Your task to perform on an android device: Open calendar and show me the fourth week of next month Image 0: 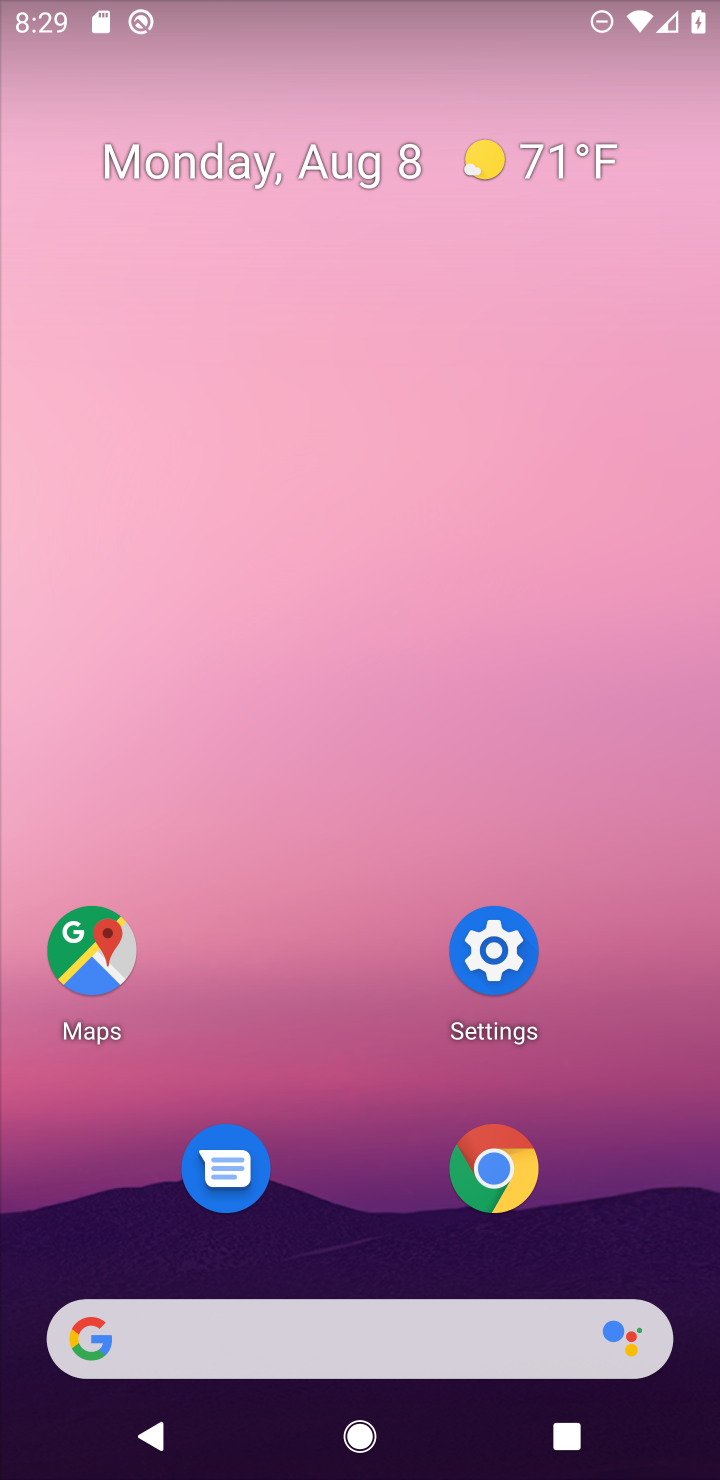
Step 0: press home button
Your task to perform on an android device: Open calendar and show me the fourth week of next month Image 1: 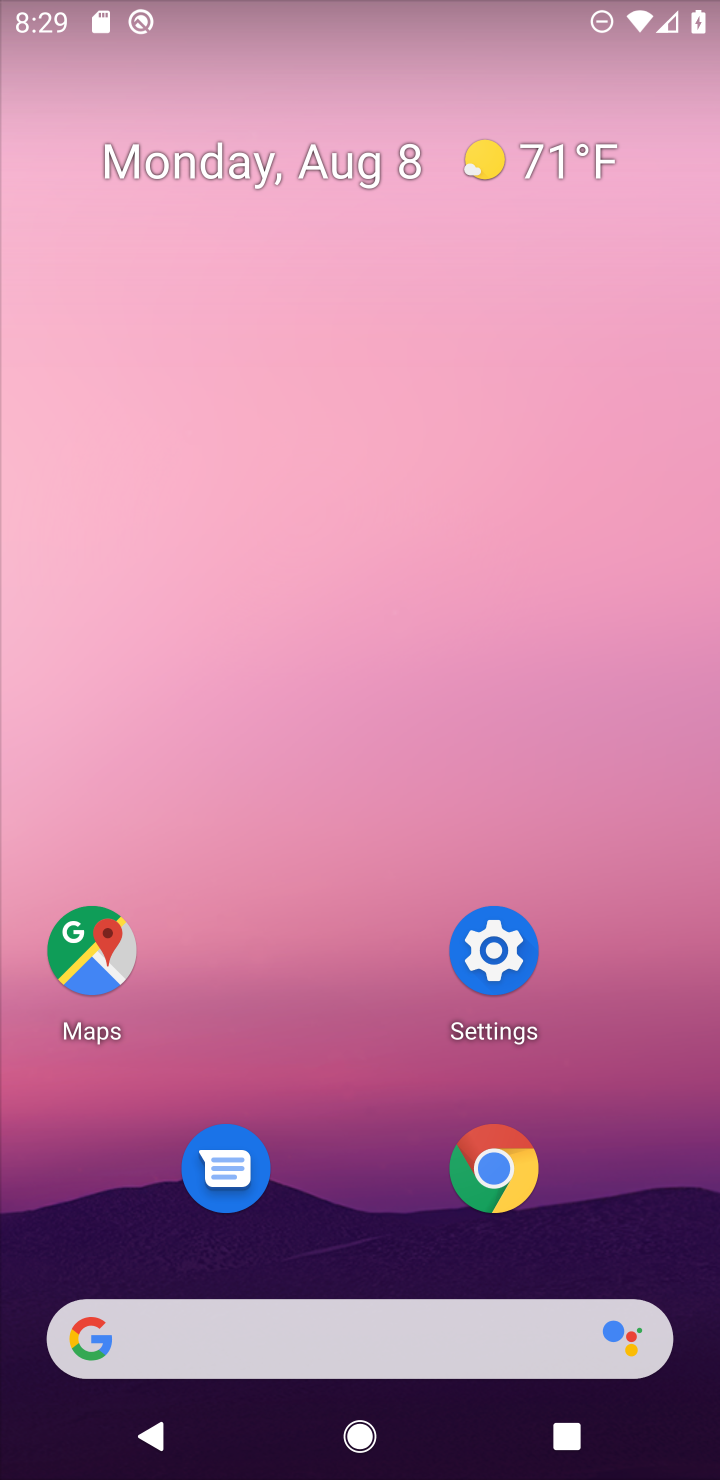
Step 1: drag from (234, 1309) to (646, 27)
Your task to perform on an android device: Open calendar and show me the fourth week of next month Image 2: 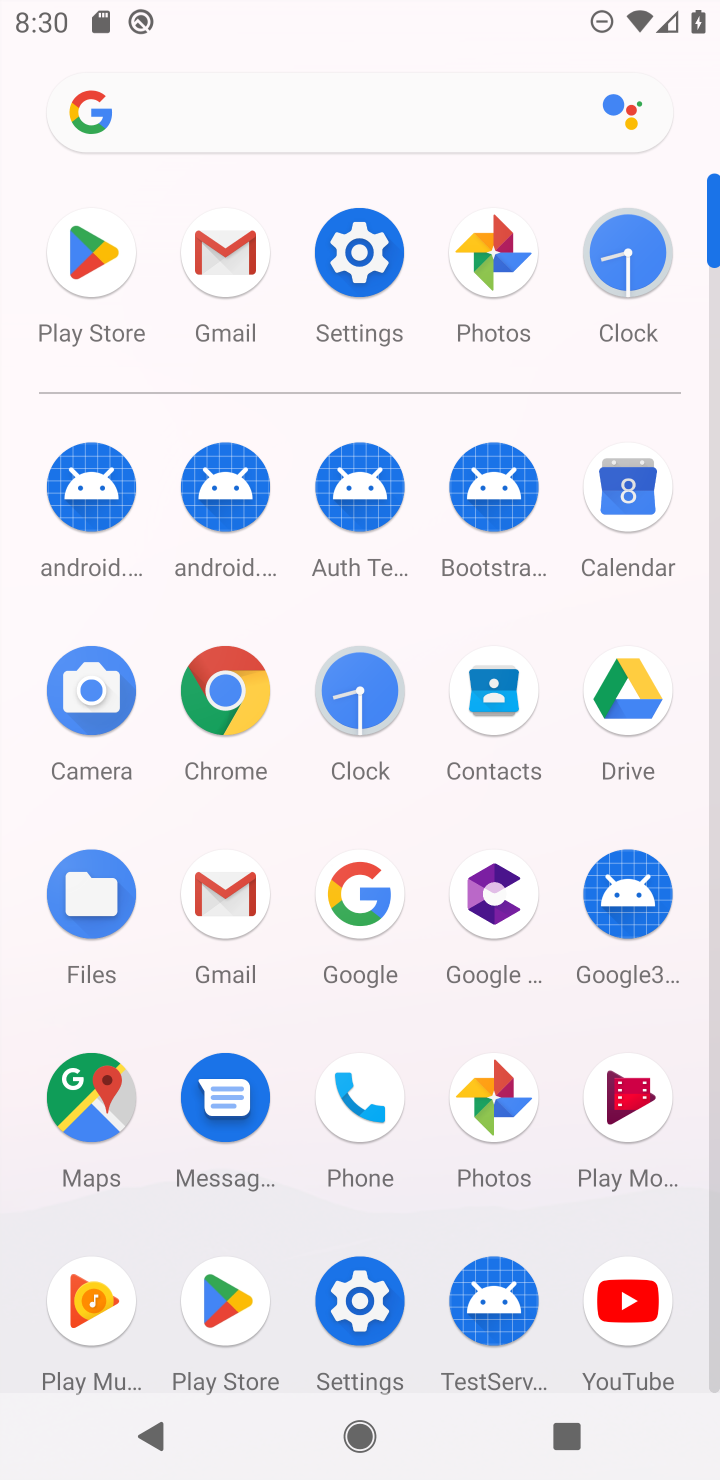
Step 2: click (635, 494)
Your task to perform on an android device: Open calendar and show me the fourth week of next month Image 3: 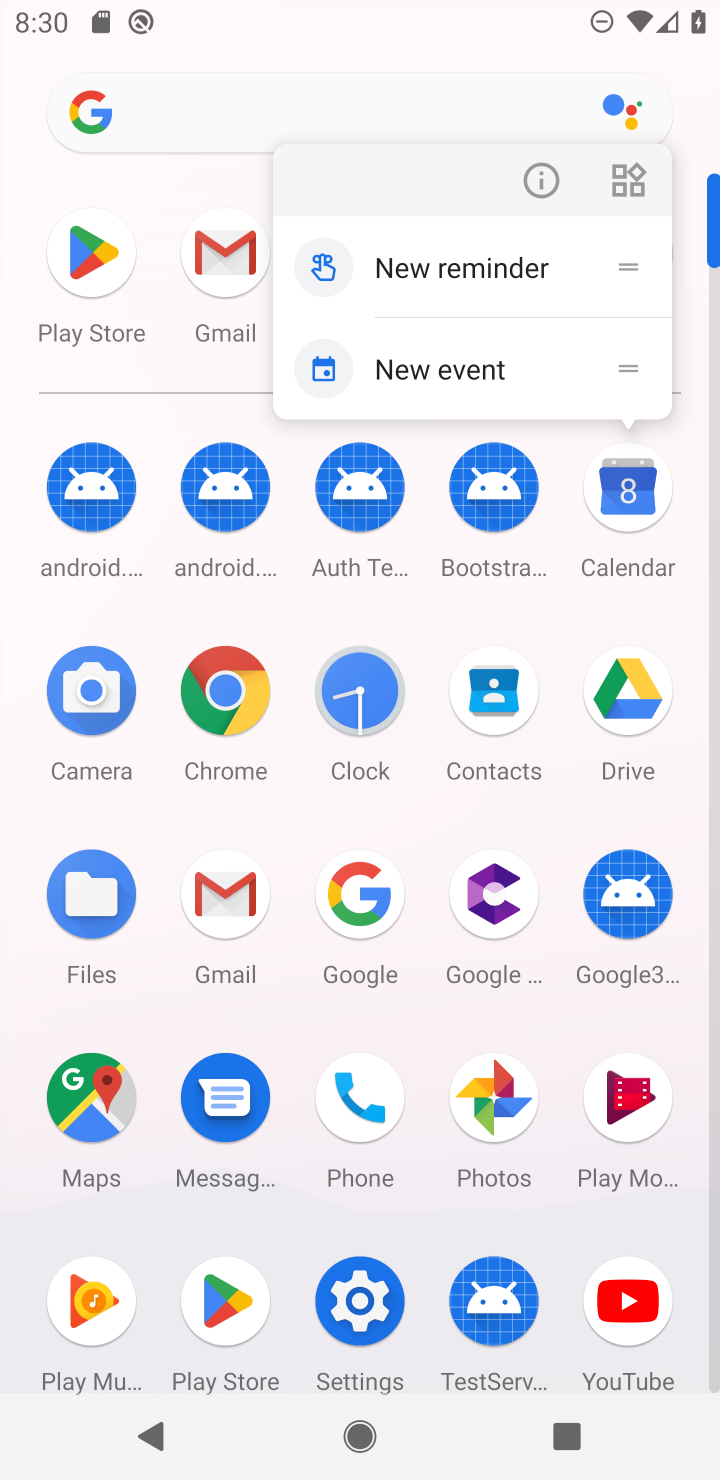
Step 3: click (623, 492)
Your task to perform on an android device: Open calendar and show me the fourth week of next month Image 4: 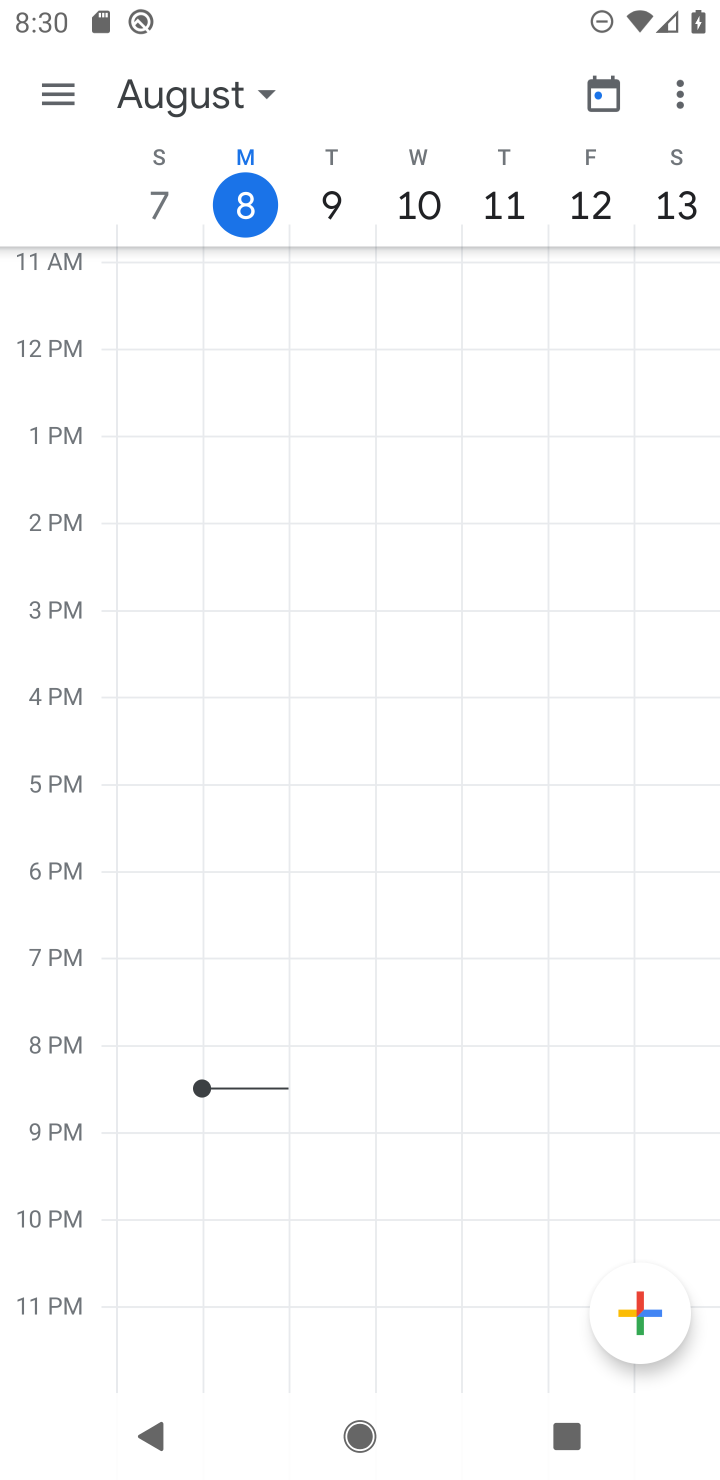
Step 4: click (194, 80)
Your task to perform on an android device: Open calendar and show me the fourth week of next month Image 5: 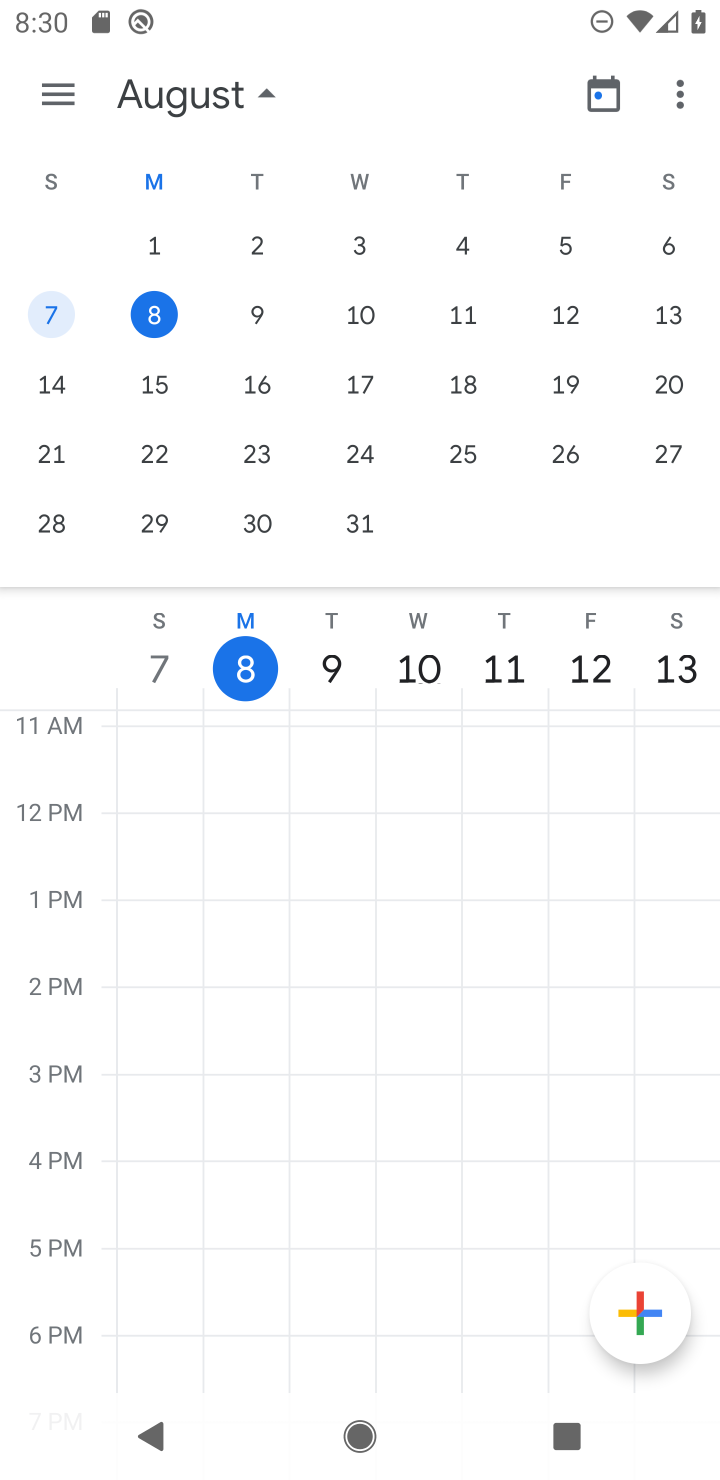
Step 5: drag from (603, 386) to (39, 286)
Your task to perform on an android device: Open calendar and show me the fourth week of next month Image 6: 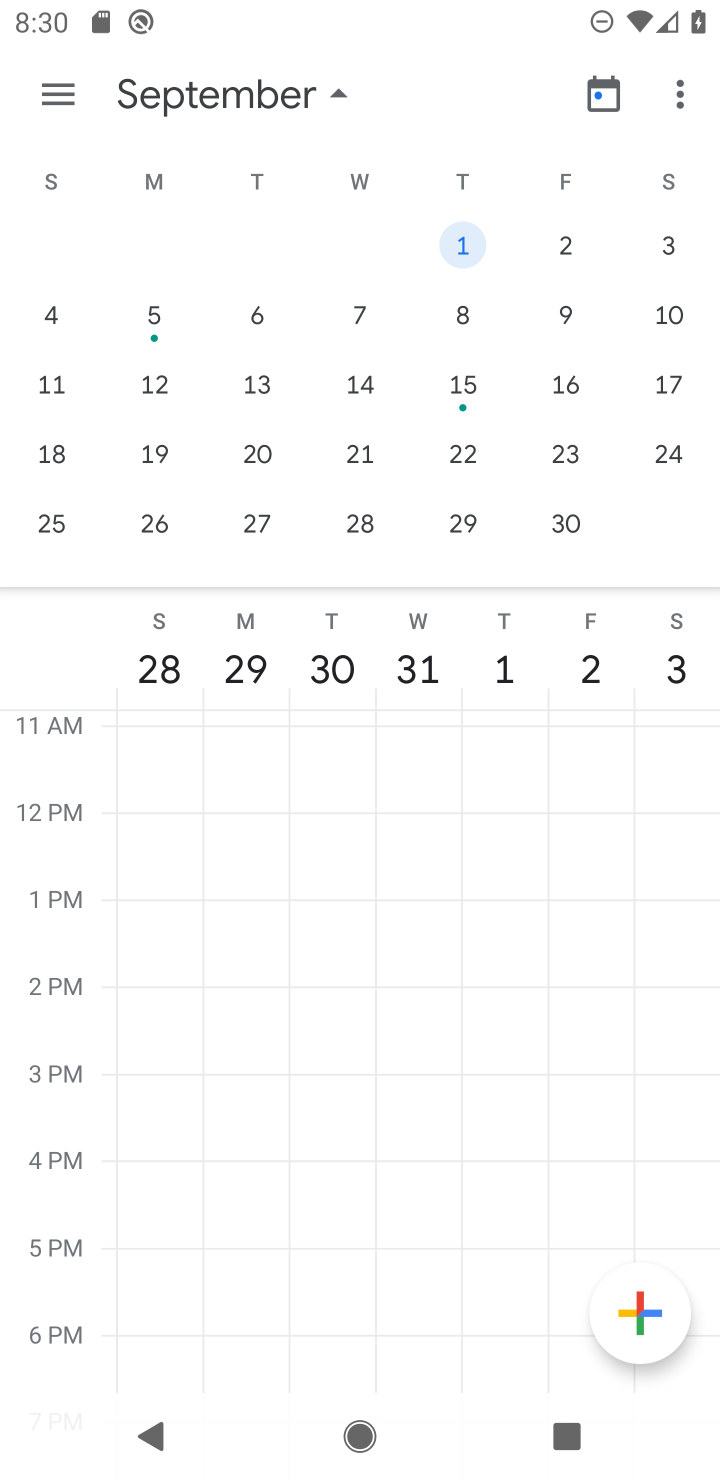
Step 6: click (60, 454)
Your task to perform on an android device: Open calendar and show me the fourth week of next month Image 7: 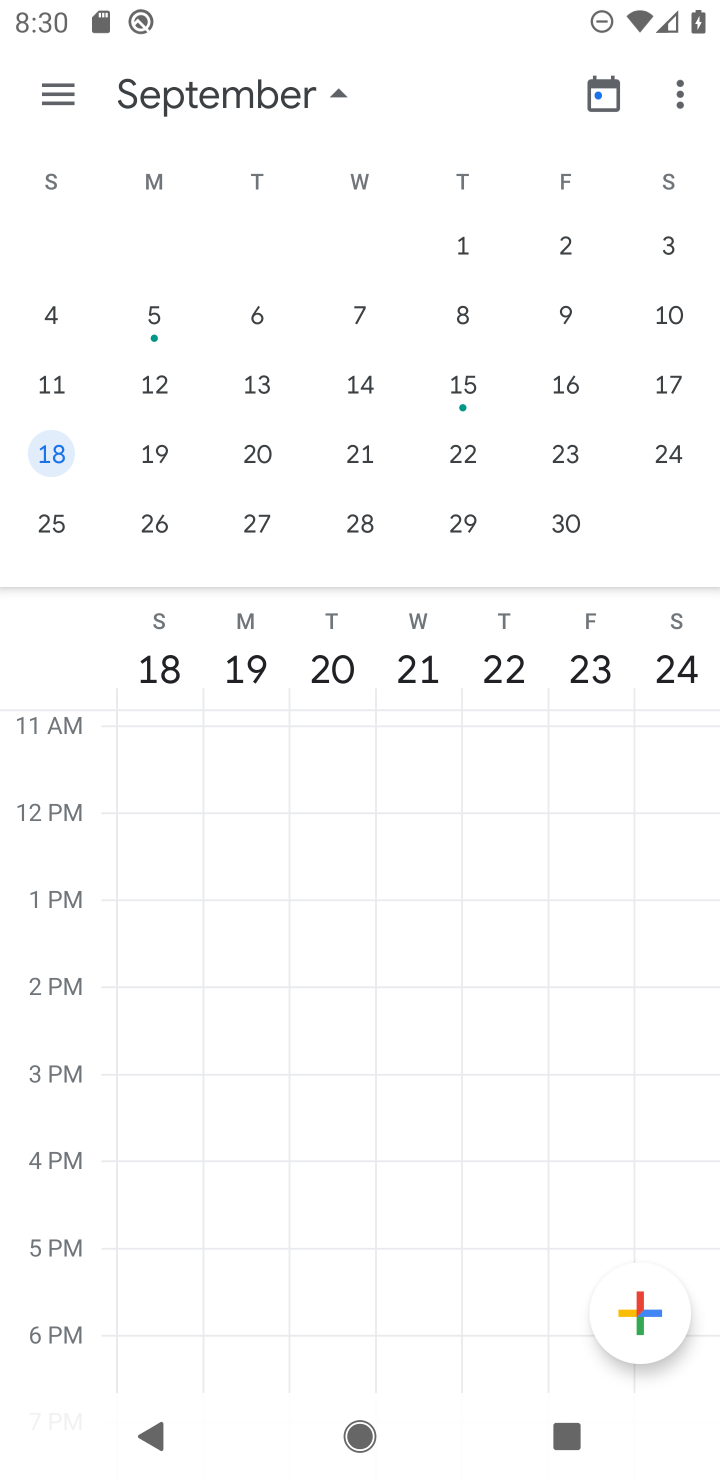
Step 7: click (40, 98)
Your task to perform on an android device: Open calendar and show me the fourth week of next month Image 8: 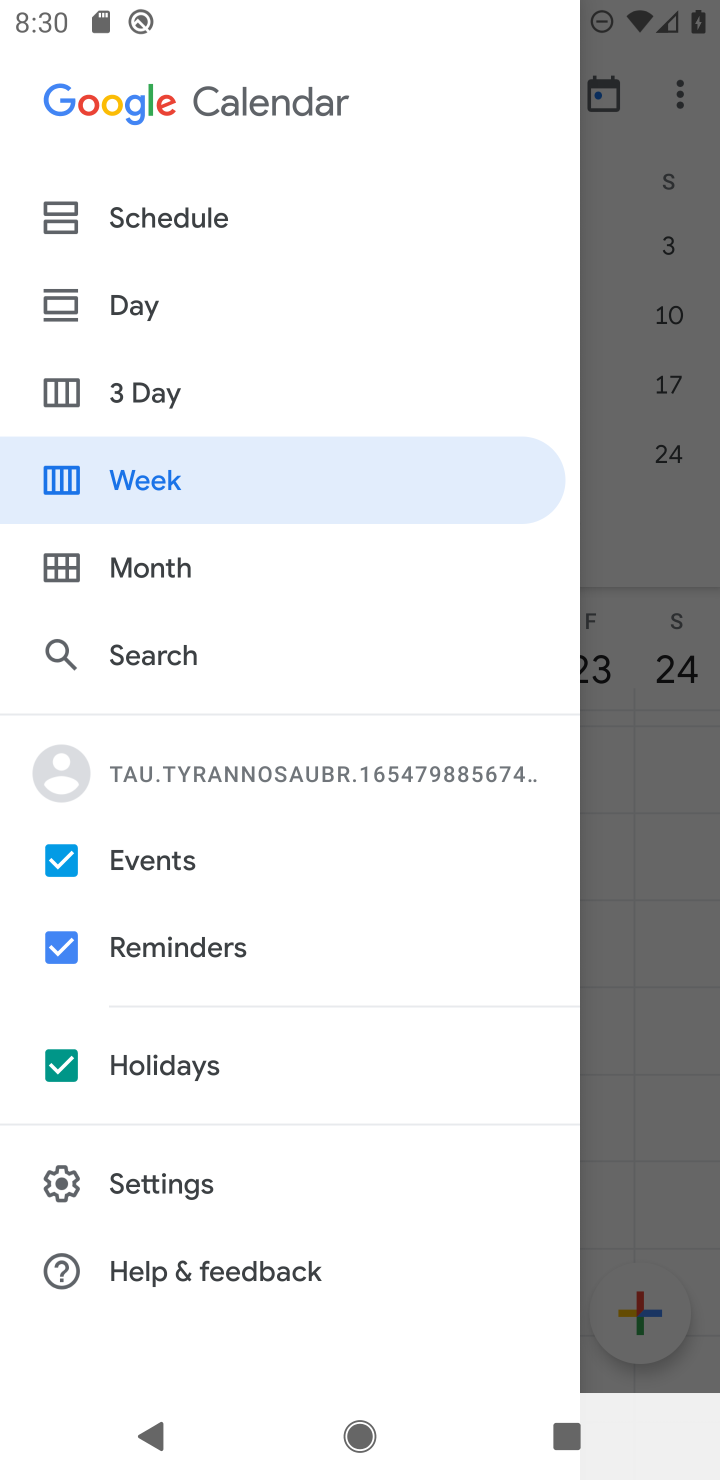
Step 8: click (143, 464)
Your task to perform on an android device: Open calendar and show me the fourth week of next month Image 9: 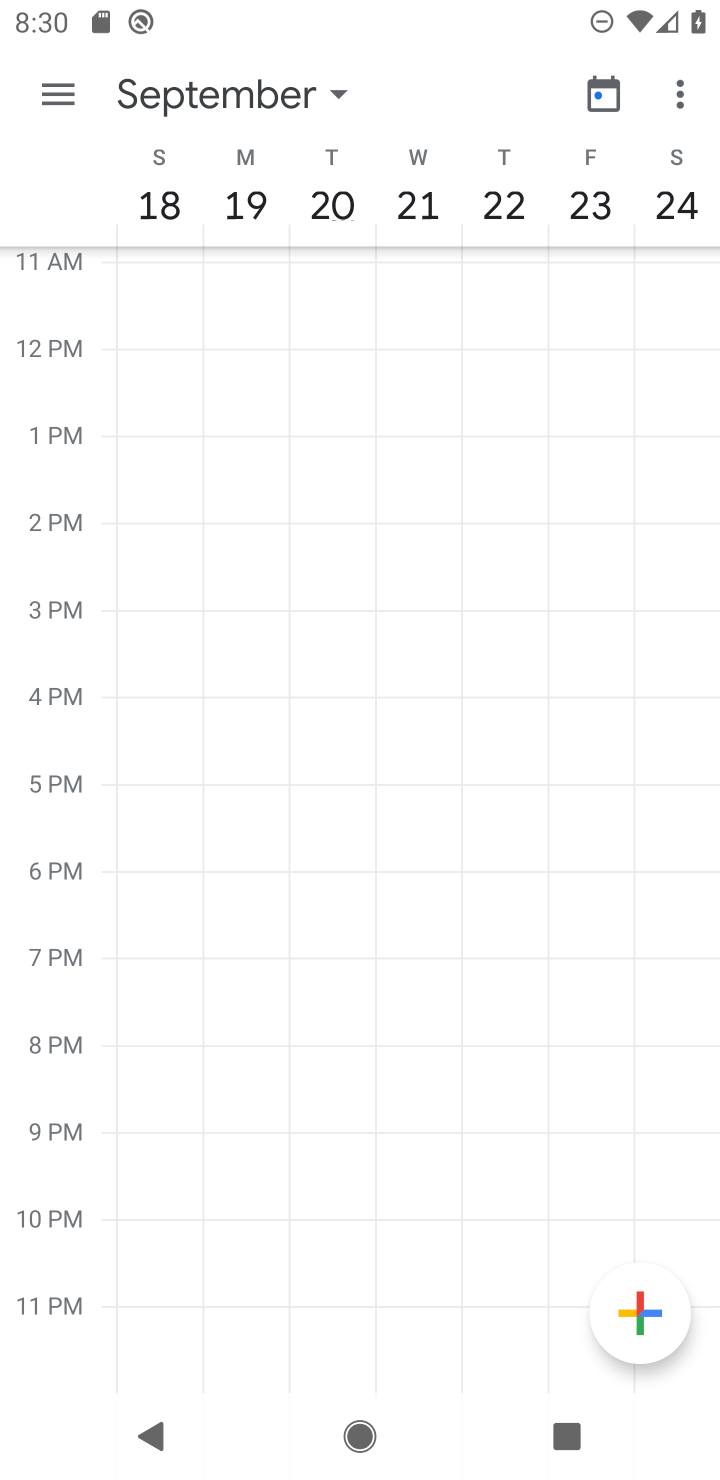
Step 9: task complete